Your task to perform on an android device: Open Google Maps and go to "Timeline" Image 0: 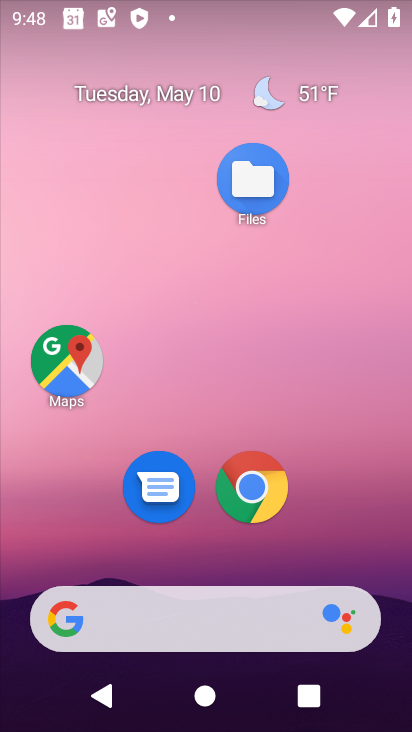
Step 0: click (59, 361)
Your task to perform on an android device: Open Google Maps and go to "Timeline" Image 1: 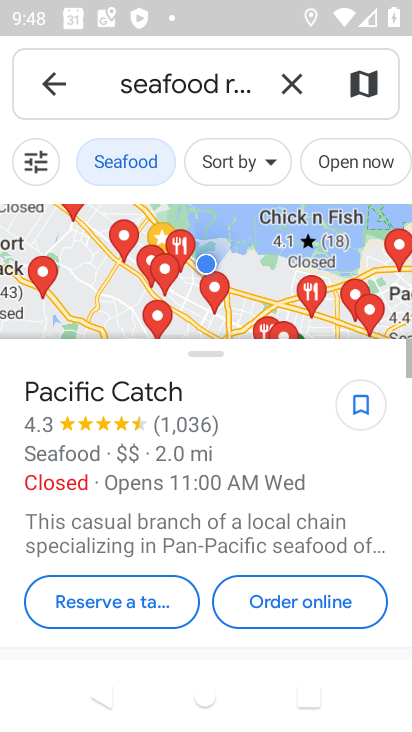
Step 1: press back button
Your task to perform on an android device: Open Google Maps and go to "Timeline" Image 2: 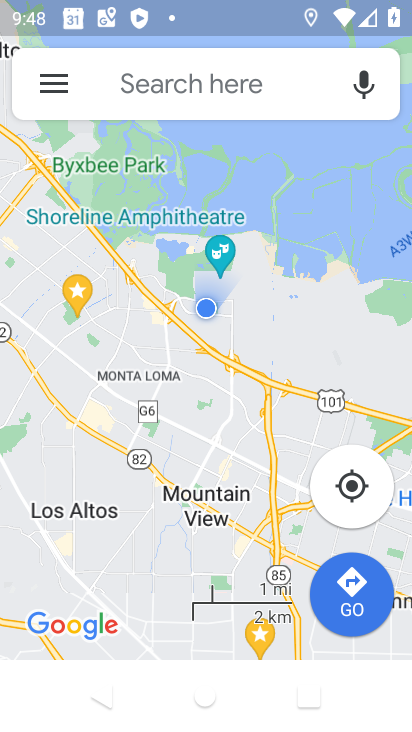
Step 2: click (40, 89)
Your task to perform on an android device: Open Google Maps and go to "Timeline" Image 3: 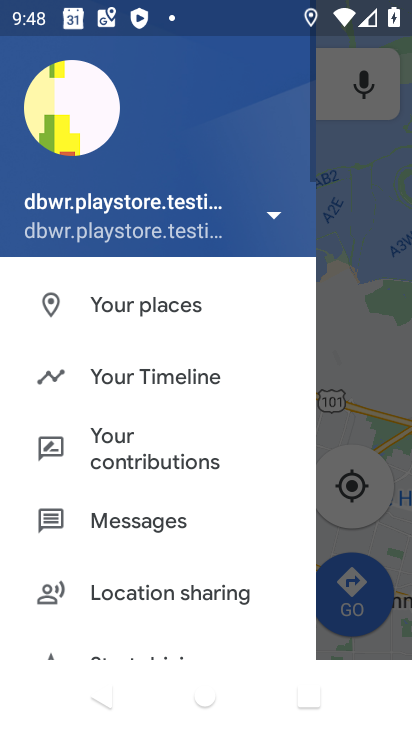
Step 3: click (137, 381)
Your task to perform on an android device: Open Google Maps and go to "Timeline" Image 4: 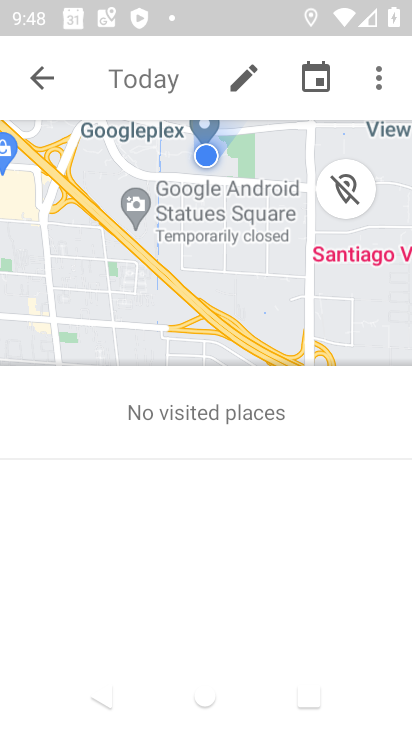
Step 4: task complete